Your task to perform on an android device: Search for the best rated soccer ball on AliExpress Image 0: 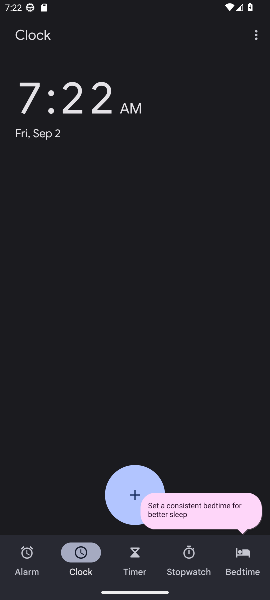
Step 0: press home button
Your task to perform on an android device: Search for the best rated soccer ball on AliExpress Image 1: 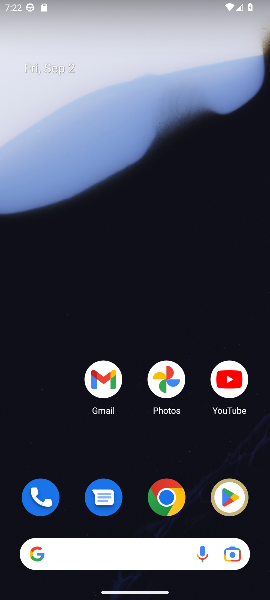
Step 1: click (91, 547)
Your task to perform on an android device: Search for the best rated soccer ball on AliExpress Image 2: 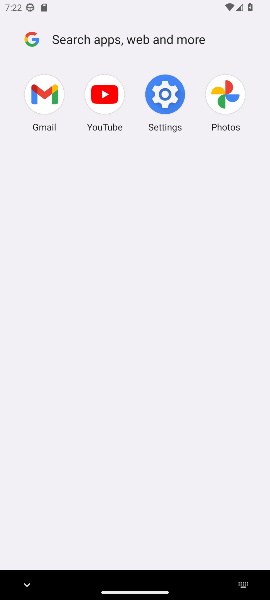
Step 2: click (99, 88)
Your task to perform on an android device: Search for the best rated soccer ball on AliExpress Image 3: 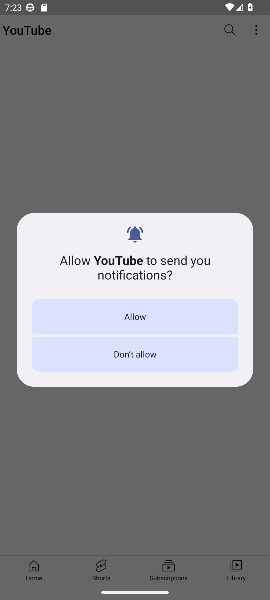
Step 3: click (128, 303)
Your task to perform on an android device: Search for the best rated soccer ball on AliExpress Image 4: 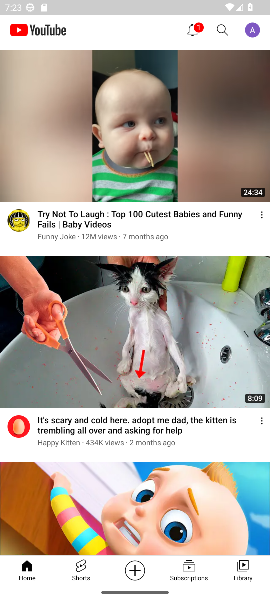
Step 4: click (223, 27)
Your task to perform on an android device: Search for the best rated soccer ball on AliExpress Image 5: 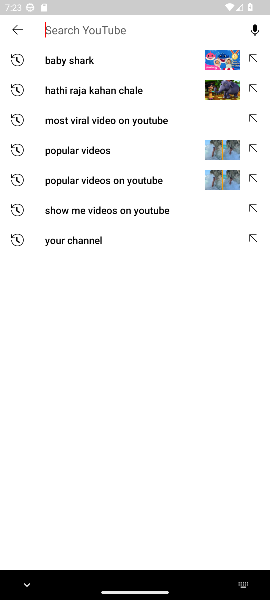
Step 5: press home button
Your task to perform on an android device: Search for the best rated soccer ball on AliExpress Image 6: 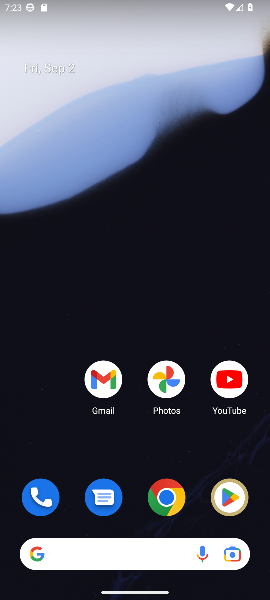
Step 6: click (110, 550)
Your task to perform on an android device: Search for the best rated soccer ball on AliExpress Image 7: 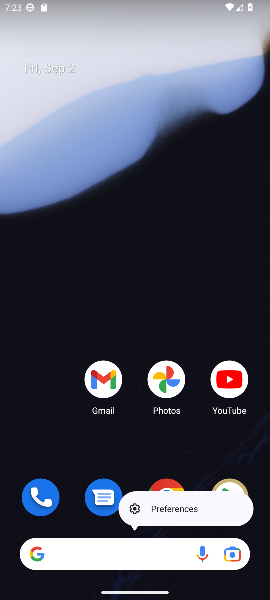
Step 7: click (110, 550)
Your task to perform on an android device: Search for the best rated soccer ball on AliExpress Image 8: 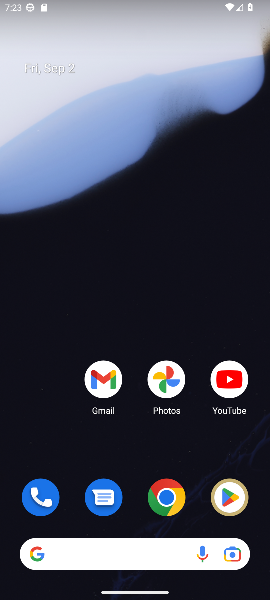
Step 8: click (110, 550)
Your task to perform on an android device: Search for the best rated soccer ball on AliExpress Image 9: 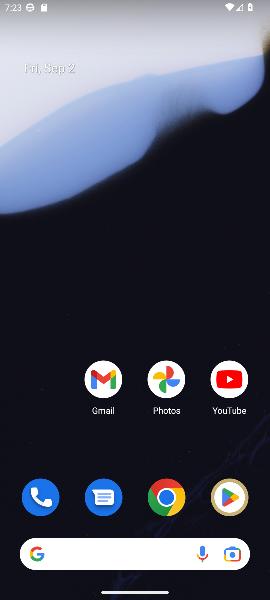
Step 9: click (110, 550)
Your task to perform on an android device: Search for the best rated soccer ball on AliExpress Image 10: 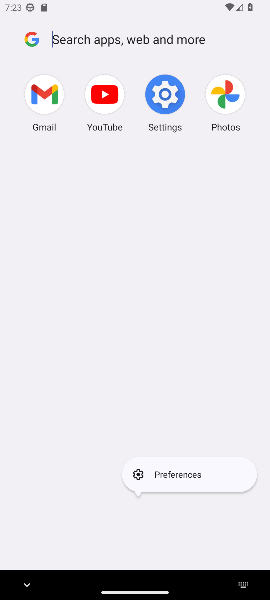
Step 10: type "the best rated soccer ball on AliExpress"
Your task to perform on an android device: Search for the best rated soccer ball on AliExpress Image 11: 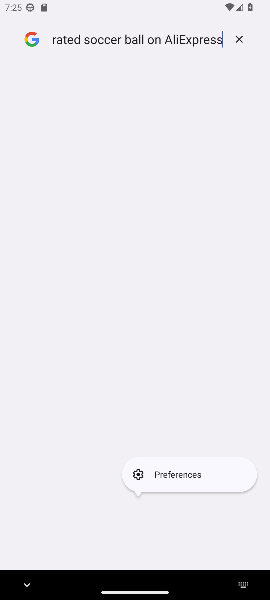
Step 11: task complete